Your task to perform on an android device: turn off airplane mode Image 0: 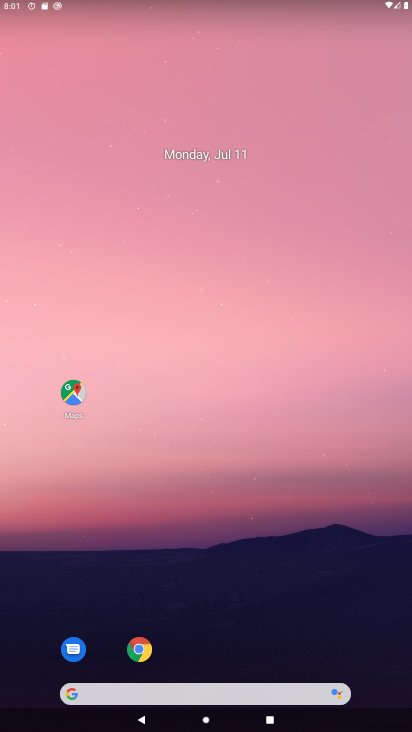
Step 0: drag from (245, 623) to (251, 52)
Your task to perform on an android device: turn off airplane mode Image 1: 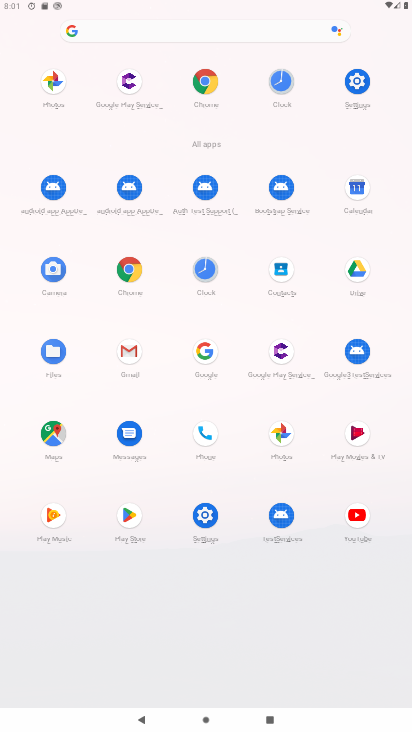
Step 1: click (358, 79)
Your task to perform on an android device: turn off airplane mode Image 2: 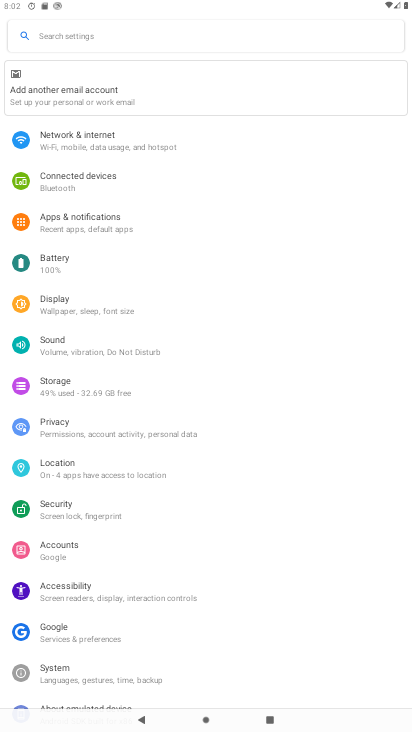
Step 2: click (135, 138)
Your task to perform on an android device: turn off airplane mode Image 3: 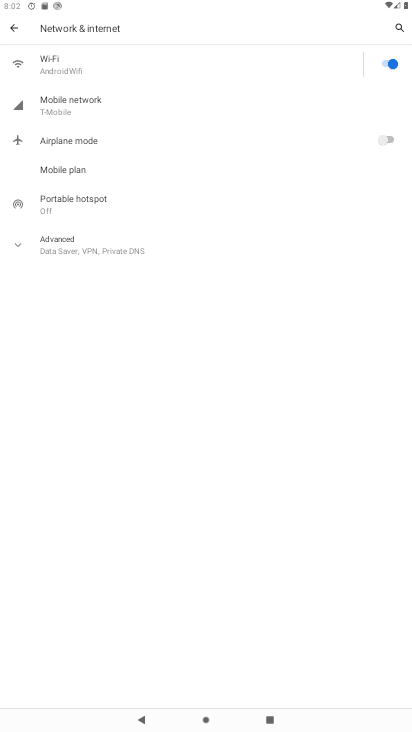
Step 3: task complete